Your task to perform on an android device: toggle data saver in the chrome app Image 0: 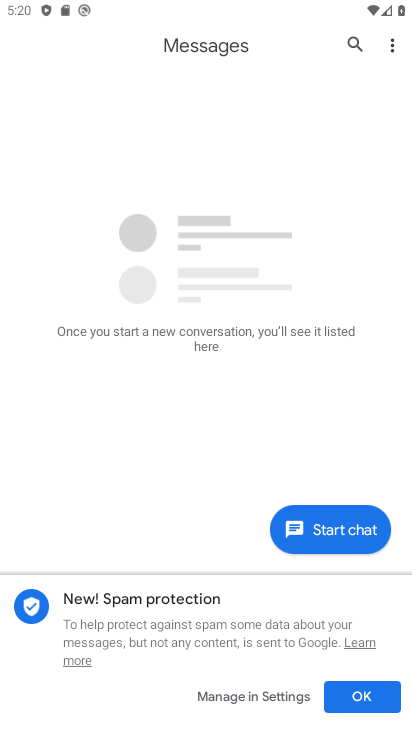
Step 0: press home button
Your task to perform on an android device: toggle data saver in the chrome app Image 1: 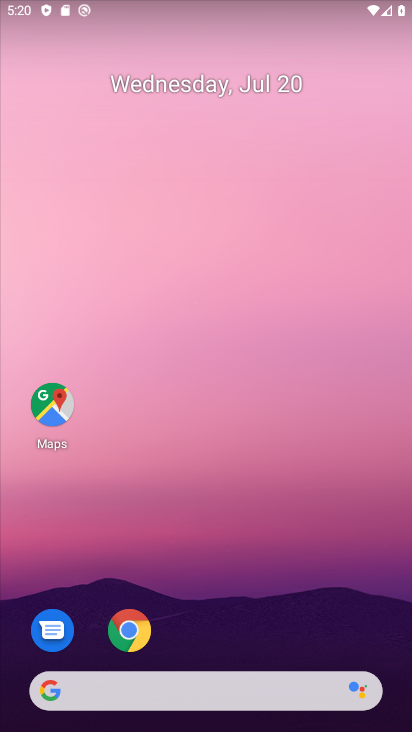
Step 1: drag from (322, 620) to (298, 72)
Your task to perform on an android device: toggle data saver in the chrome app Image 2: 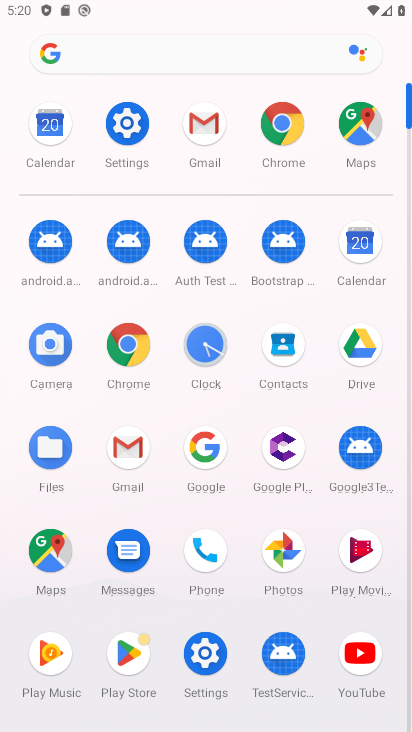
Step 2: click (127, 344)
Your task to perform on an android device: toggle data saver in the chrome app Image 3: 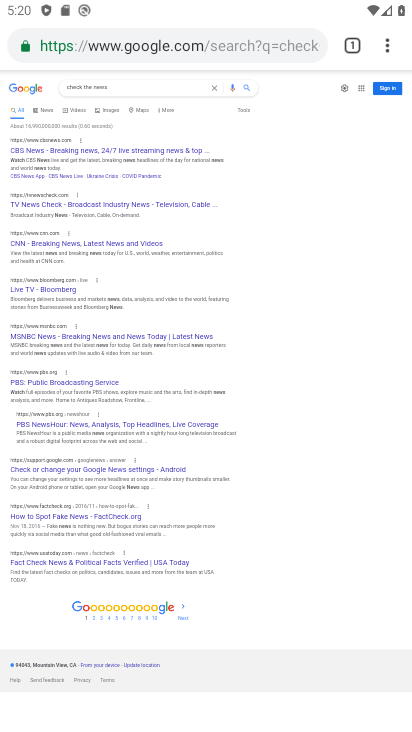
Step 3: drag from (383, 45) to (209, 563)
Your task to perform on an android device: toggle data saver in the chrome app Image 4: 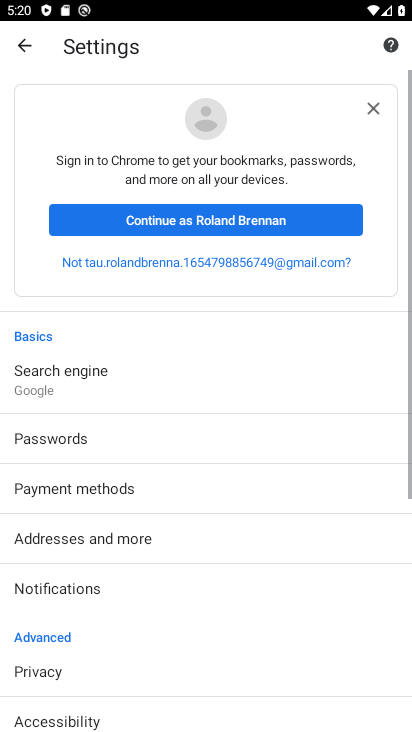
Step 4: drag from (156, 640) to (198, 151)
Your task to perform on an android device: toggle data saver in the chrome app Image 5: 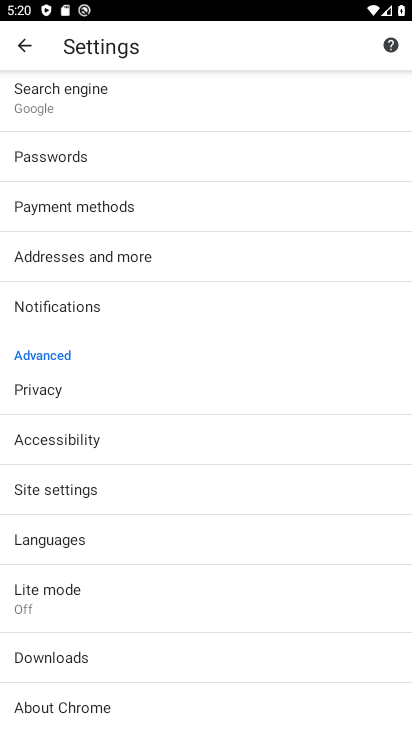
Step 5: click (72, 581)
Your task to perform on an android device: toggle data saver in the chrome app Image 6: 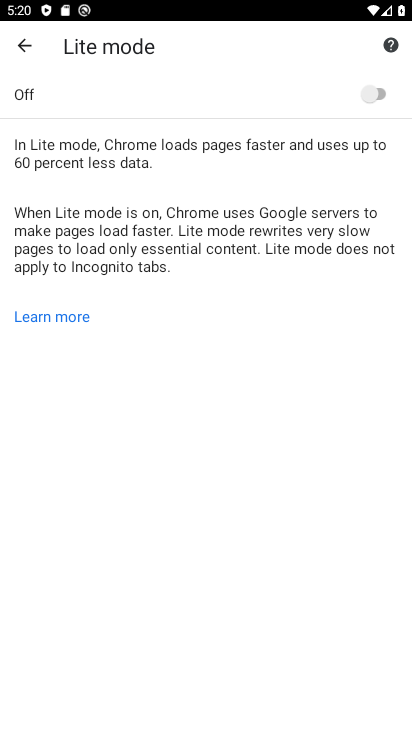
Step 6: click (385, 89)
Your task to perform on an android device: toggle data saver in the chrome app Image 7: 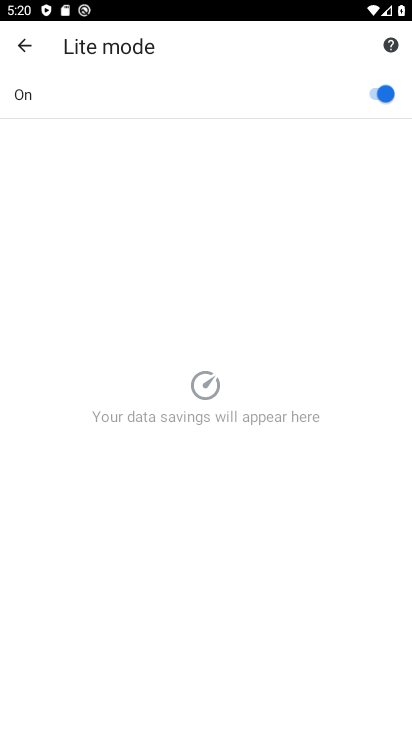
Step 7: task complete